Your task to perform on an android device: add a contact Image 0: 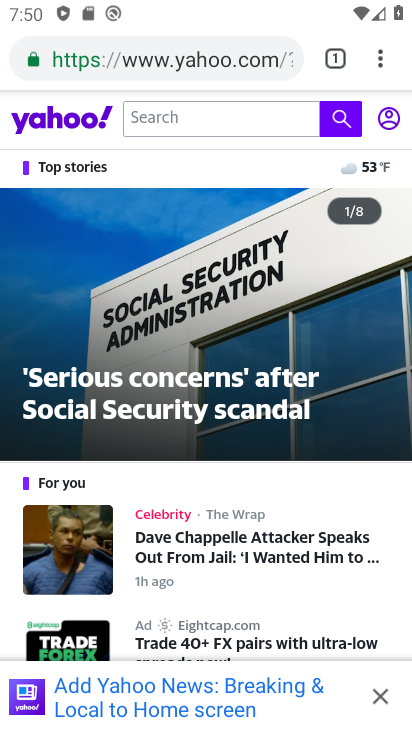
Step 0: press home button
Your task to perform on an android device: add a contact Image 1: 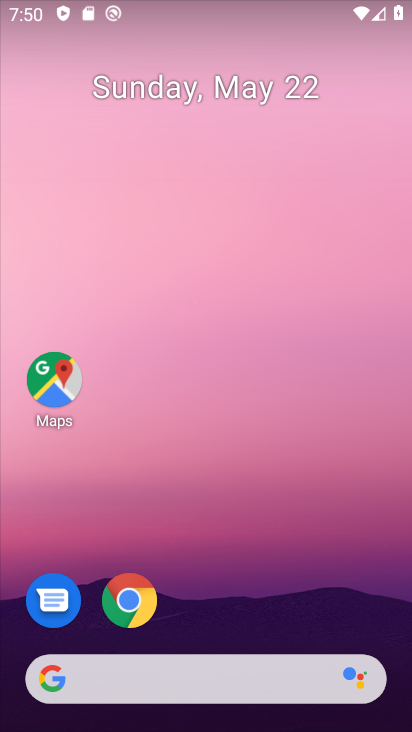
Step 1: drag from (254, 656) to (270, 314)
Your task to perform on an android device: add a contact Image 2: 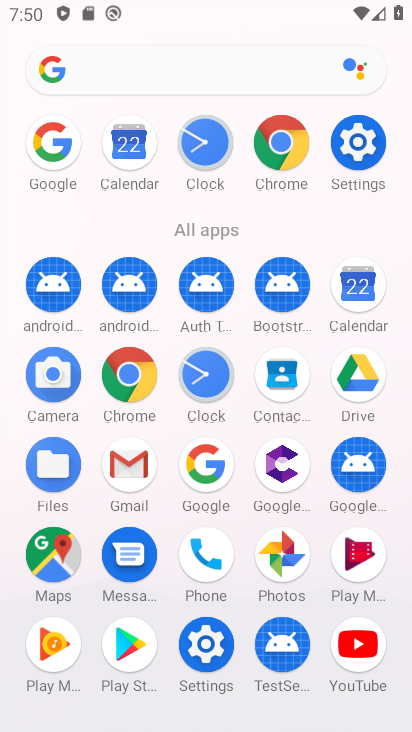
Step 2: click (289, 374)
Your task to perform on an android device: add a contact Image 3: 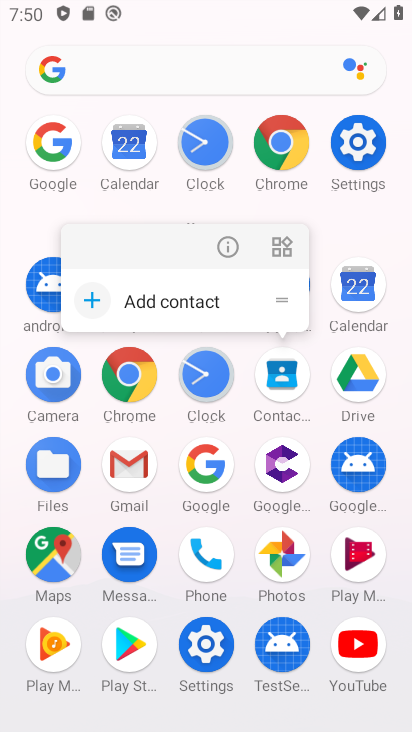
Step 3: click (289, 374)
Your task to perform on an android device: add a contact Image 4: 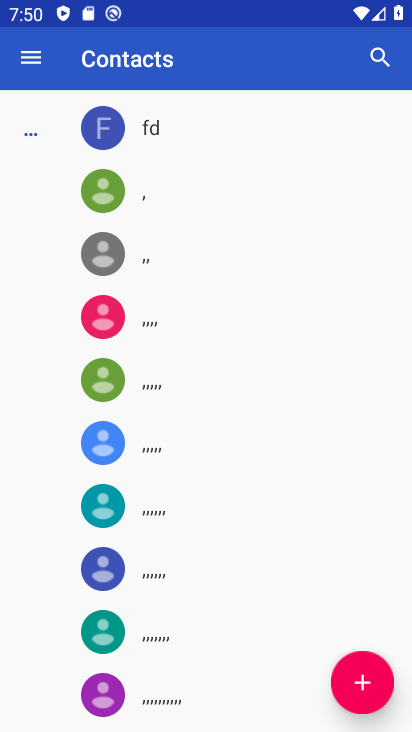
Step 4: click (357, 687)
Your task to perform on an android device: add a contact Image 5: 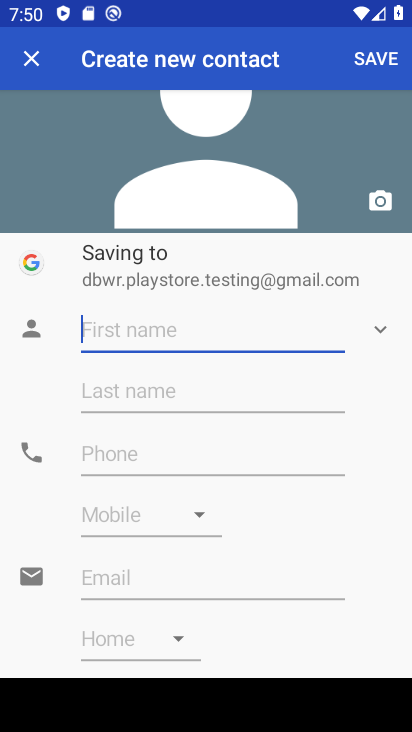
Step 5: type "loko"
Your task to perform on an android device: add a contact Image 6: 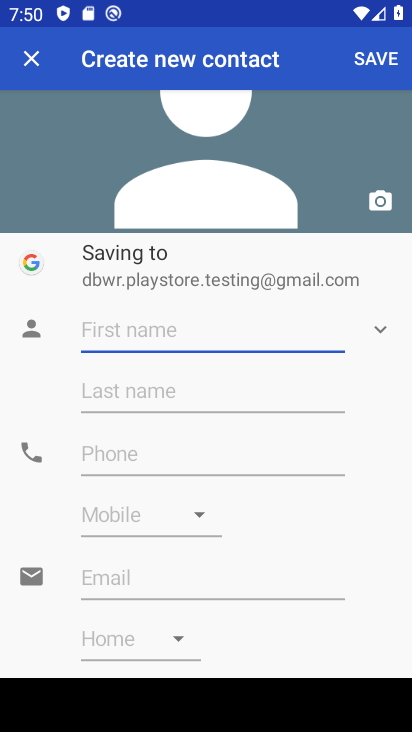
Step 6: click (210, 404)
Your task to perform on an android device: add a contact Image 7: 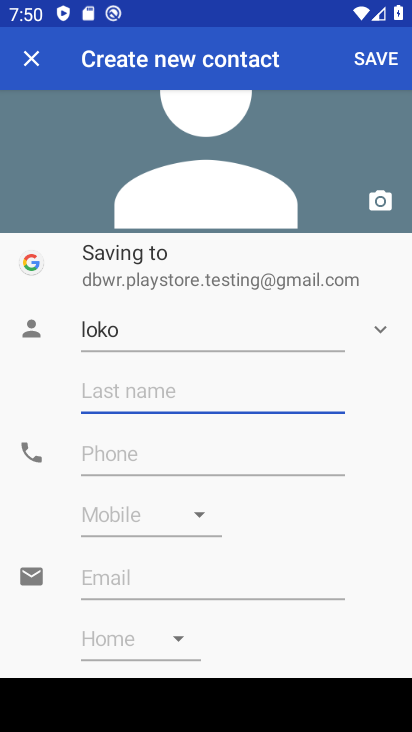
Step 7: type "lipa"
Your task to perform on an android device: add a contact Image 8: 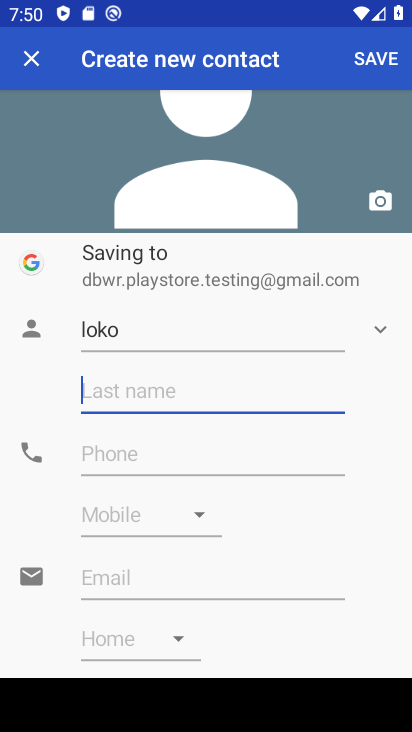
Step 8: click (200, 463)
Your task to perform on an android device: add a contact Image 9: 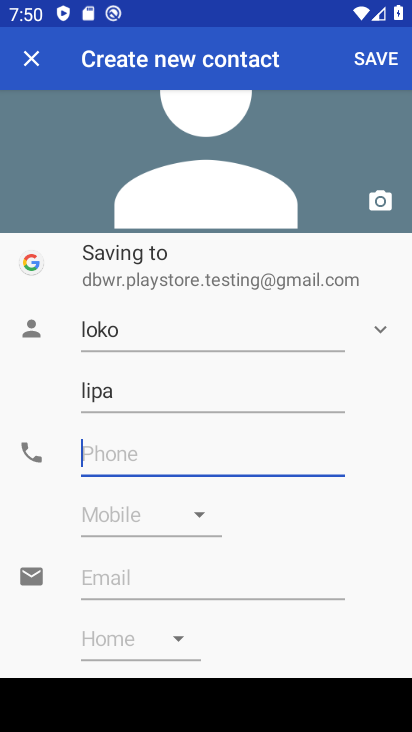
Step 9: type "6393456789"
Your task to perform on an android device: add a contact Image 10: 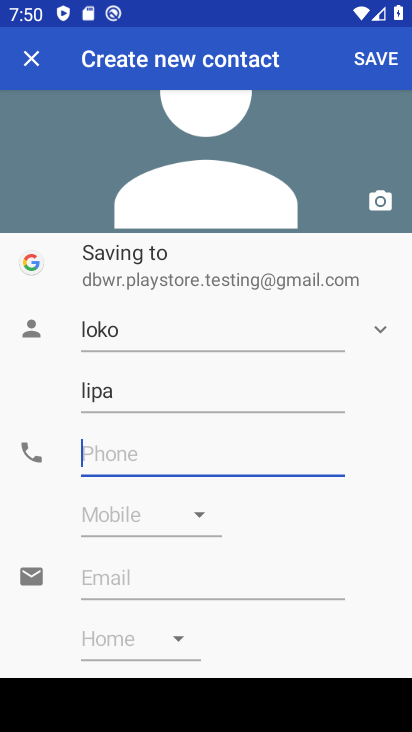
Step 10: click (190, 521)
Your task to perform on an android device: add a contact Image 11: 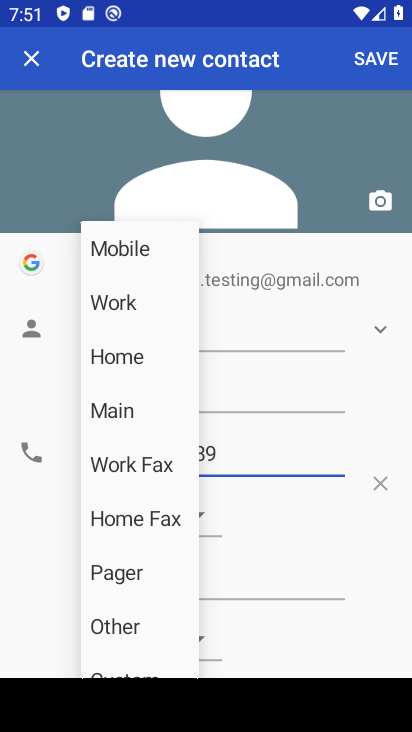
Step 11: click (171, 250)
Your task to perform on an android device: add a contact Image 12: 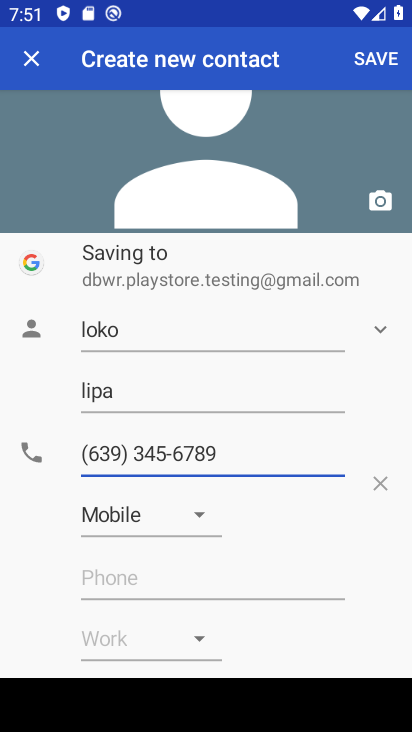
Step 12: task complete